Your task to perform on an android device: turn on wifi Image 0: 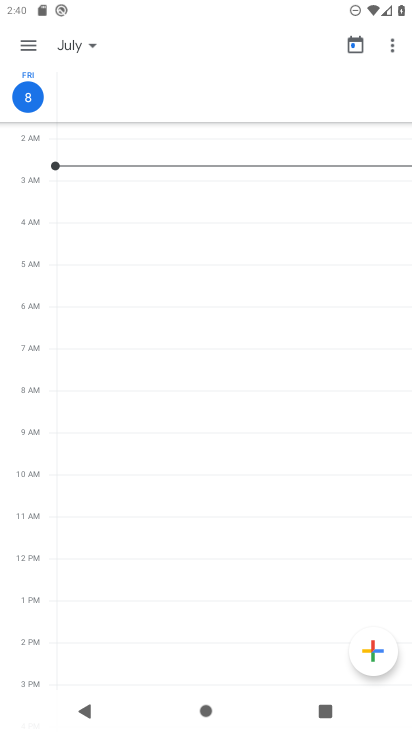
Step 0: press home button
Your task to perform on an android device: turn on wifi Image 1: 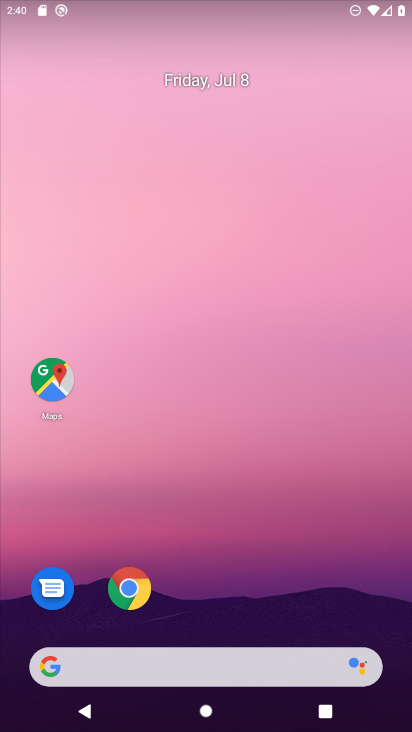
Step 1: drag from (224, 513) to (214, 37)
Your task to perform on an android device: turn on wifi Image 2: 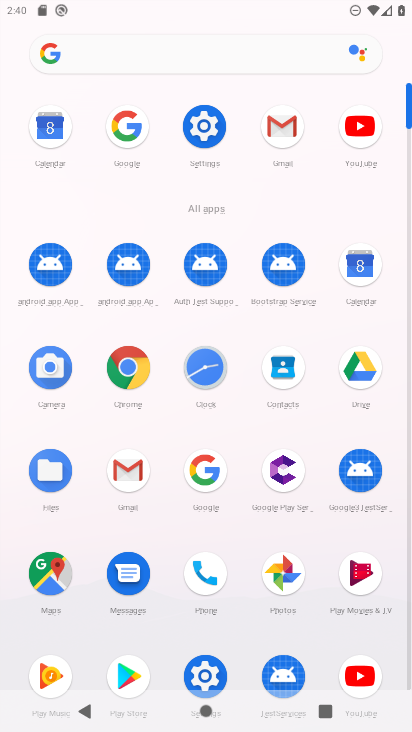
Step 2: click (205, 141)
Your task to perform on an android device: turn on wifi Image 3: 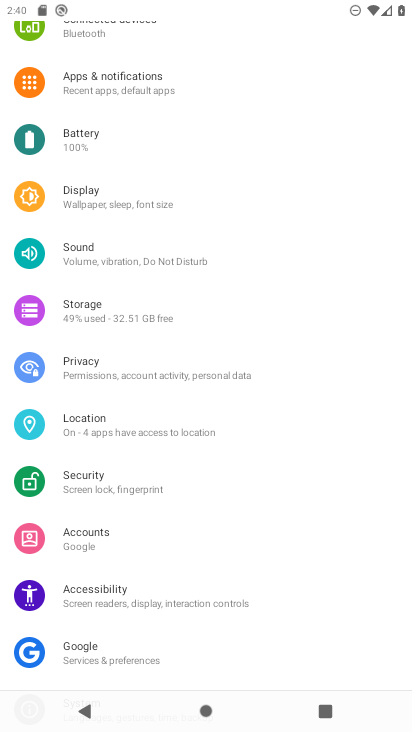
Step 3: drag from (172, 276) to (155, 545)
Your task to perform on an android device: turn on wifi Image 4: 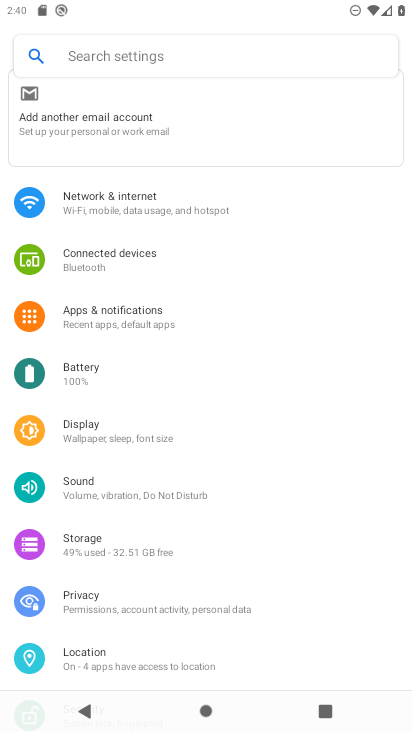
Step 4: click (118, 207)
Your task to perform on an android device: turn on wifi Image 5: 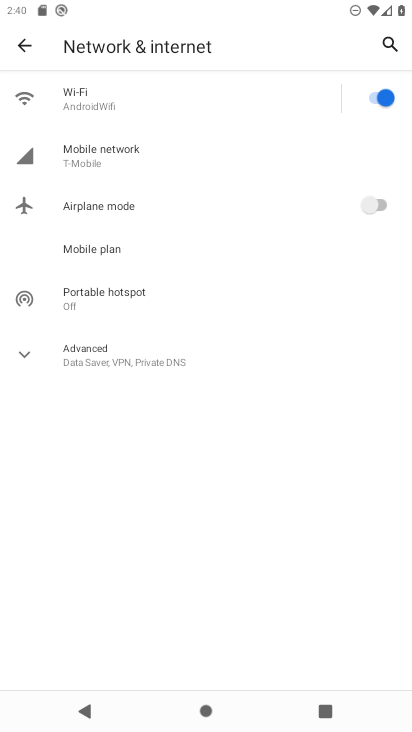
Step 5: task complete